Your task to perform on an android device: toggle pop-ups in chrome Image 0: 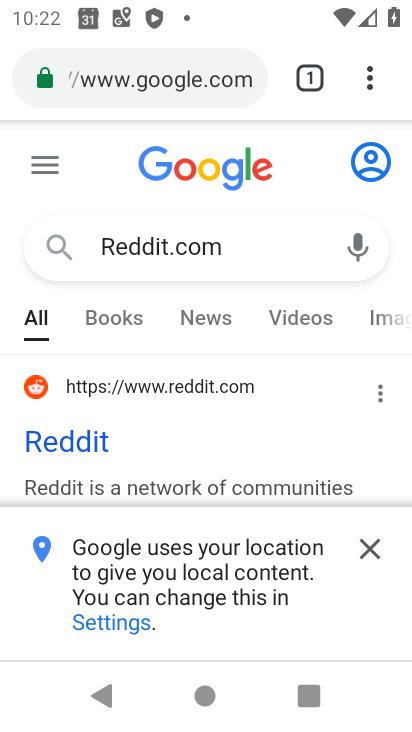
Step 0: press back button
Your task to perform on an android device: toggle pop-ups in chrome Image 1: 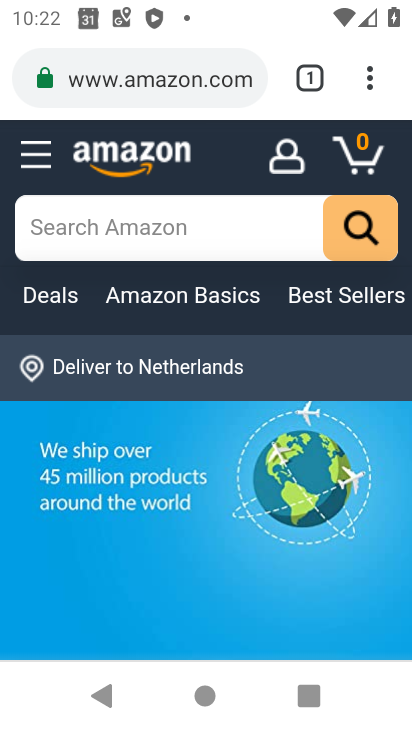
Step 1: click (360, 80)
Your task to perform on an android device: toggle pop-ups in chrome Image 2: 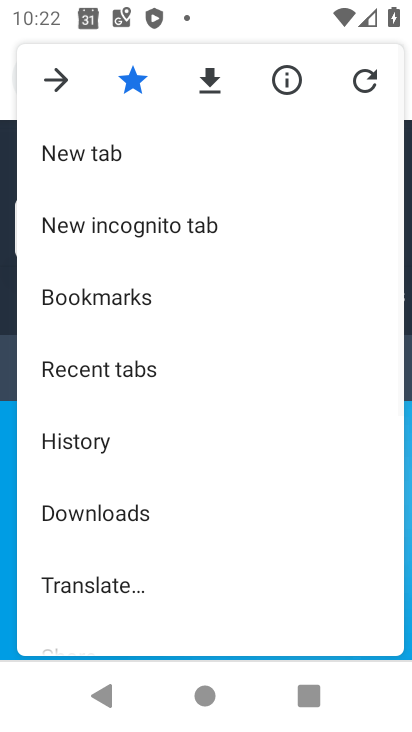
Step 2: drag from (97, 627) to (242, 179)
Your task to perform on an android device: toggle pop-ups in chrome Image 3: 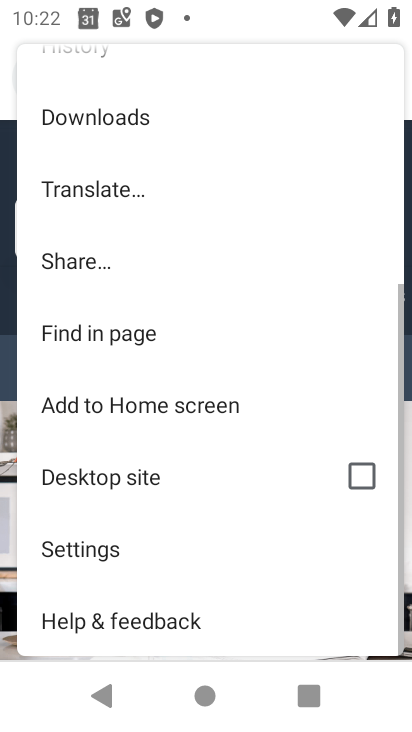
Step 3: click (87, 544)
Your task to perform on an android device: toggle pop-ups in chrome Image 4: 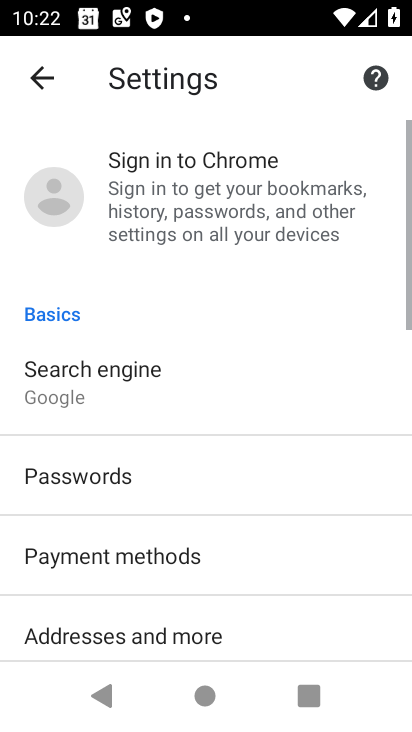
Step 4: drag from (79, 620) to (278, 171)
Your task to perform on an android device: toggle pop-ups in chrome Image 5: 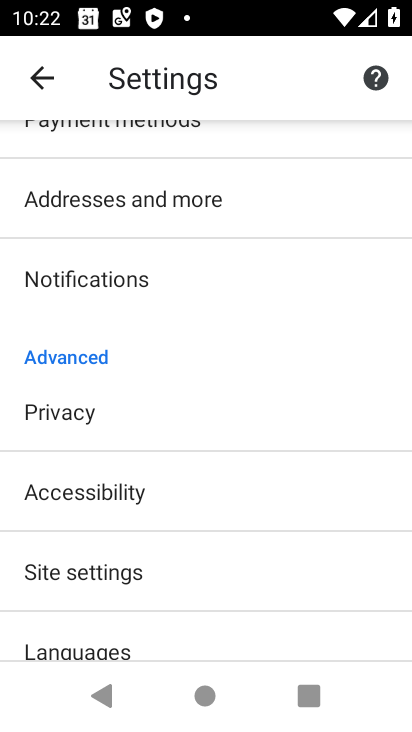
Step 5: click (121, 574)
Your task to perform on an android device: toggle pop-ups in chrome Image 6: 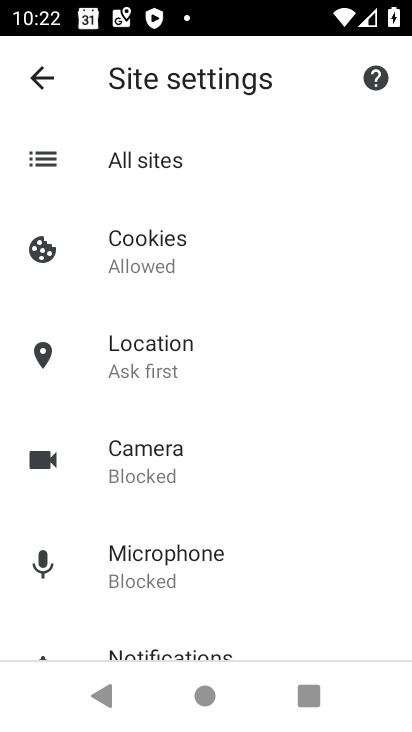
Step 6: drag from (6, 670) to (272, 284)
Your task to perform on an android device: toggle pop-ups in chrome Image 7: 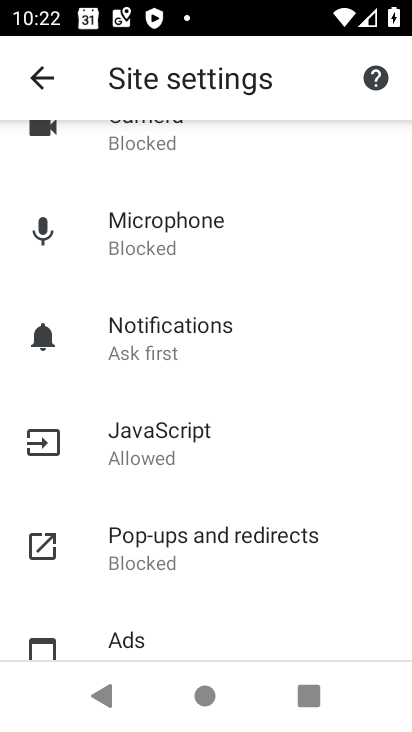
Step 7: click (126, 550)
Your task to perform on an android device: toggle pop-ups in chrome Image 8: 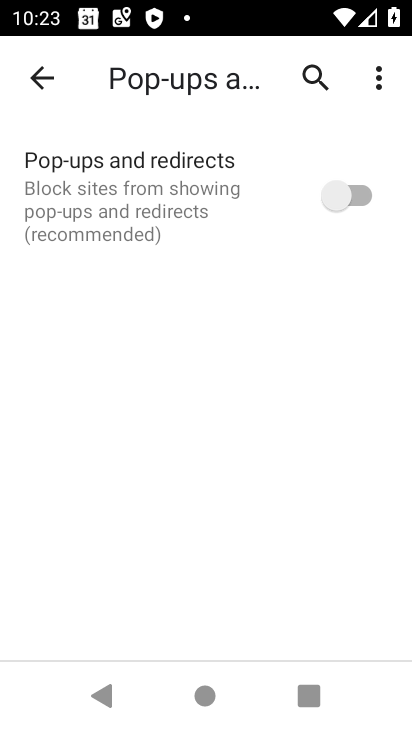
Step 8: click (321, 199)
Your task to perform on an android device: toggle pop-ups in chrome Image 9: 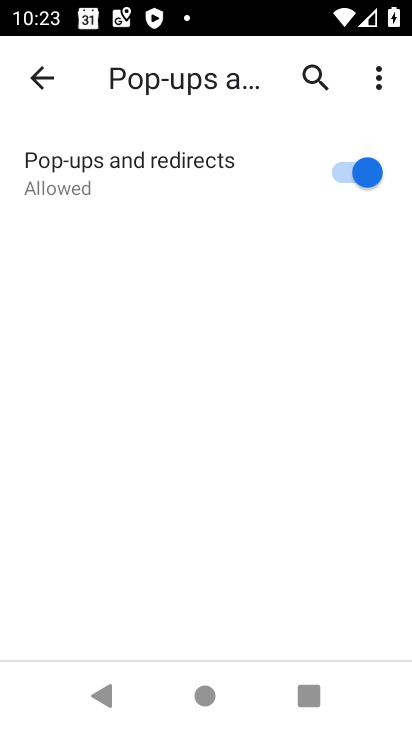
Step 9: task complete